Your task to perform on an android device: turn notification dots off Image 0: 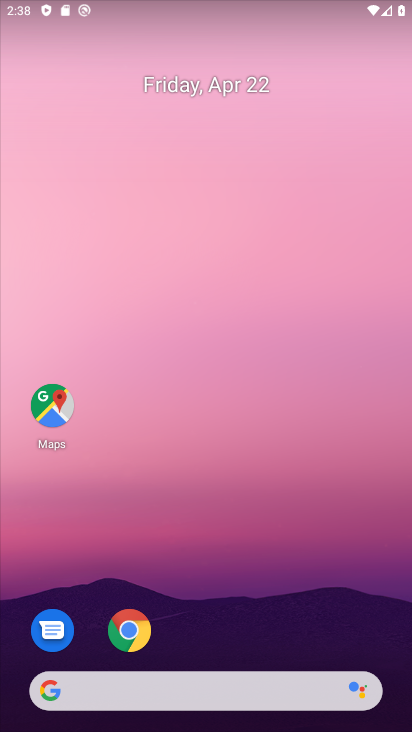
Step 0: drag from (326, 511) to (320, 195)
Your task to perform on an android device: turn notification dots off Image 1: 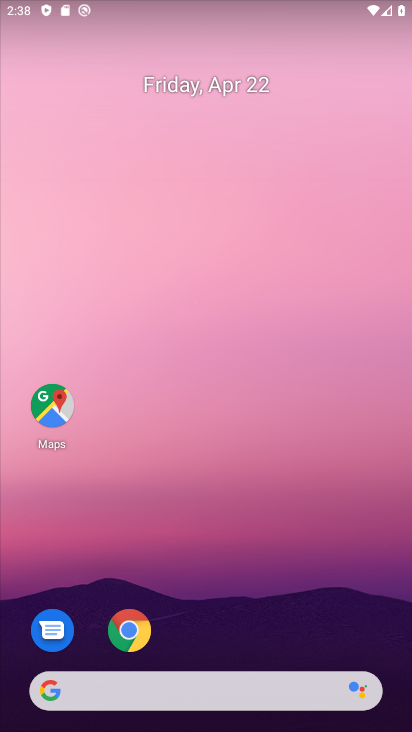
Step 1: drag from (295, 547) to (309, 157)
Your task to perform on an android device: turn notification dots off Image 2: 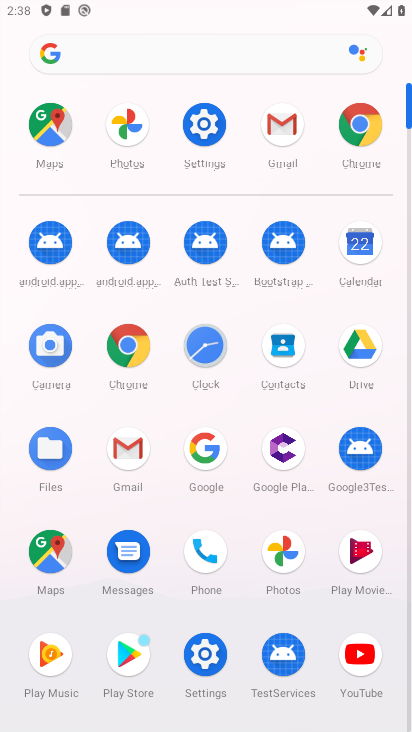
Step 2: click (198, 141)
Your task to perform on an android device: turn notification dots off Image 3: 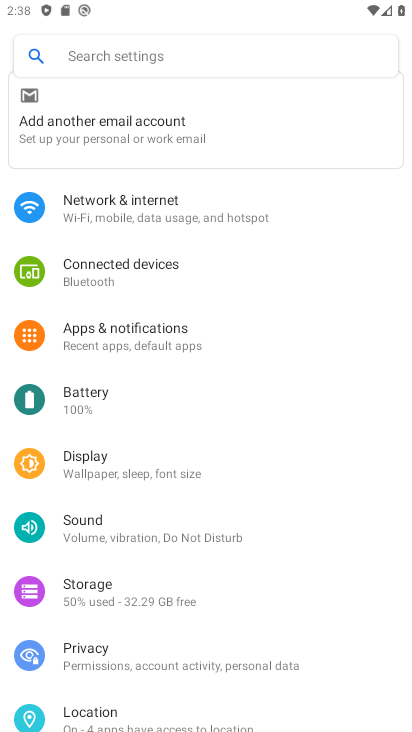
Step 3: click (152, 324)
Your task to perform on an android device: turn notification dots off Image 4: 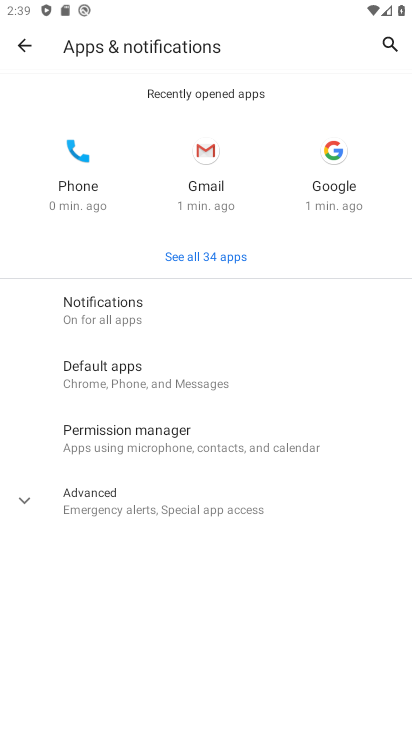
Step 4: click (144, 314)
Your task to perform on an android device: turn notification dots off Image 5: 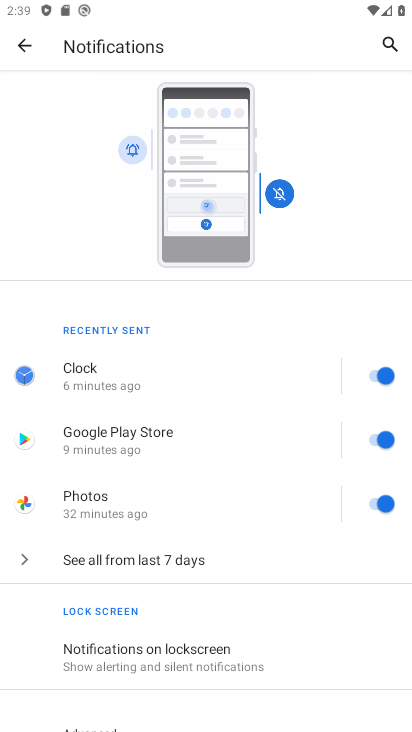
Step 5: drag from (230, 595) to (228, 327)
Your task to perform on an android device: turn notification dots off Image 6: 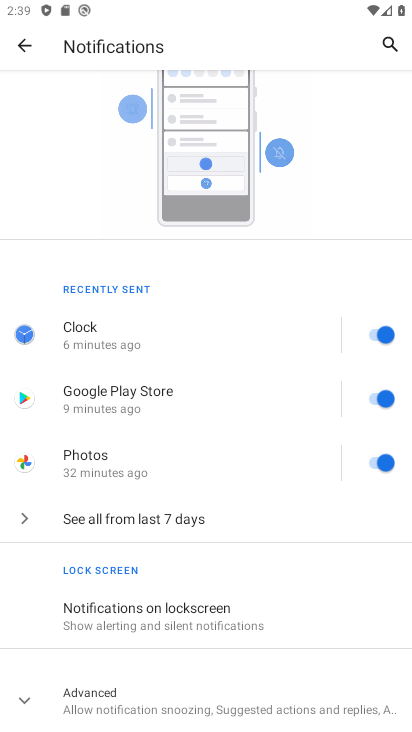
Step 6: drag from (229, 617) to (251, 386)
Your task to perform on an android device: turn notification dots off Image 7: 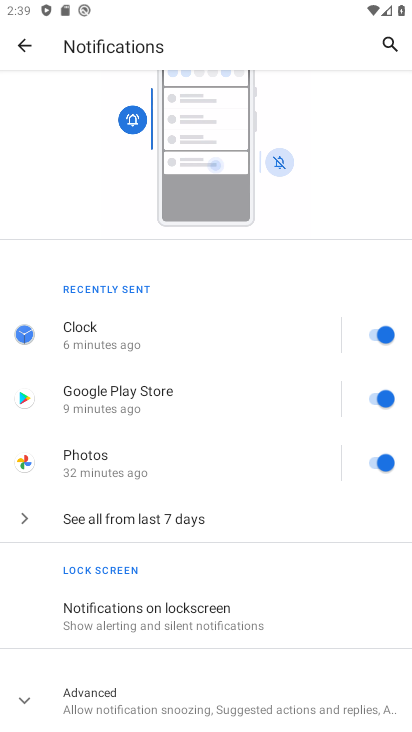
Step 7: click (186, 694)
Your task to perform on an android device: turn notification dots off Image 8: 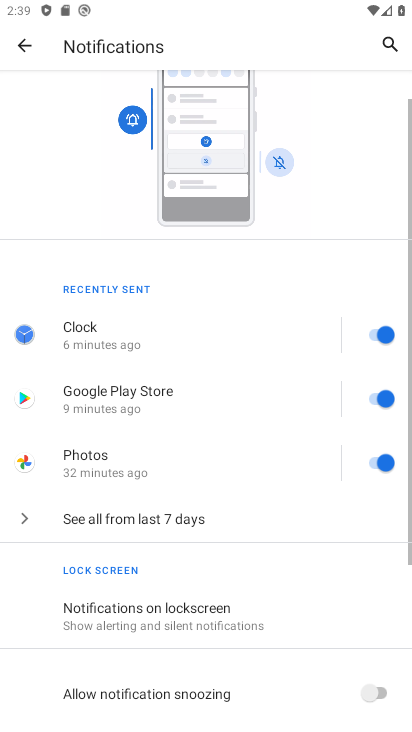
Step 8: drag from (256, 700) to (289, 349)
Your task to perform on an android device: turn notification dots off Image 9: 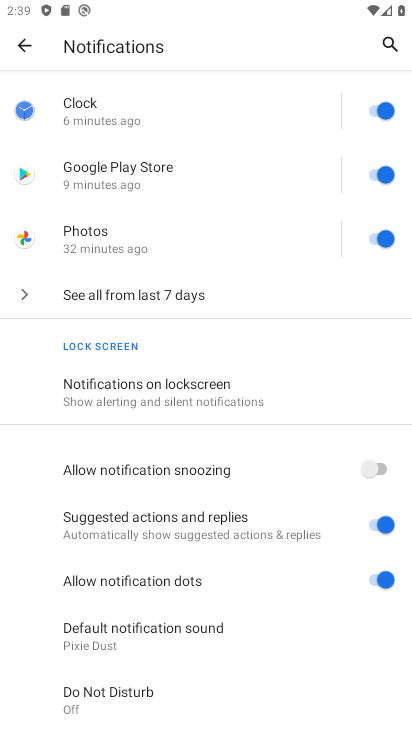
Step 9: click (378, 581)
Your task to perform on an android device: turn notification dots off Image 10: 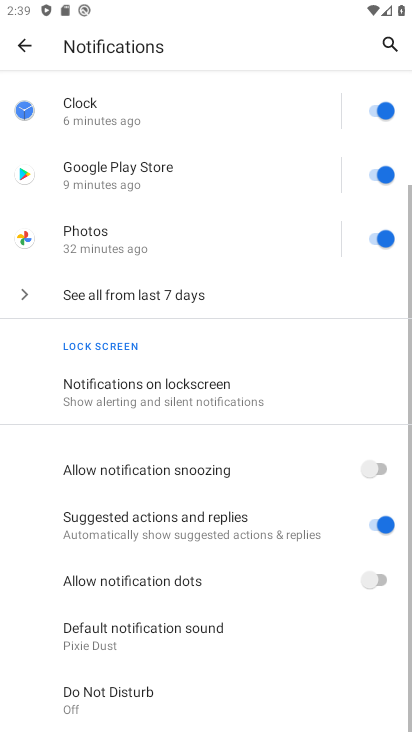
Step 10: task complete